Your task to perform on an android device: set the timer Image 0: 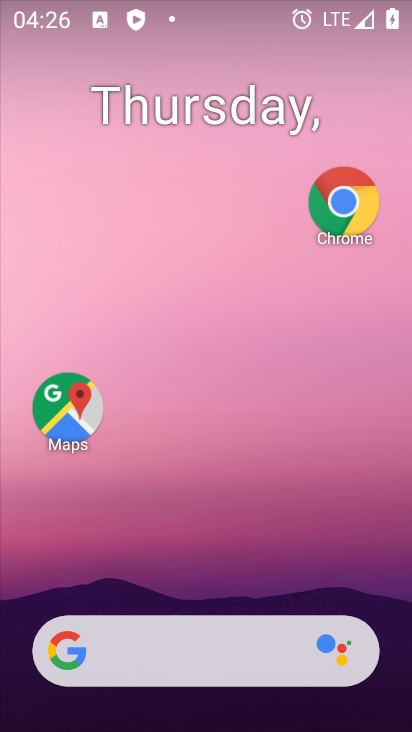
Step 0: drag from (297, 681) to (326, 32)
Your task to perform on an android device: set the timer Image 1: 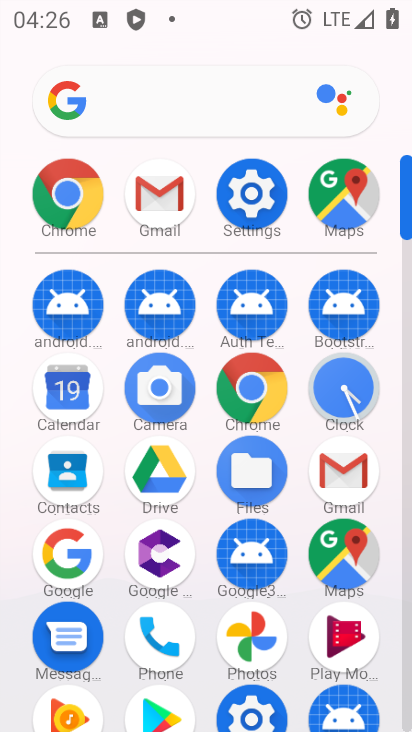
Step 1: click (354, 397)
Your task to perform on an android device: set the timer Image 2: 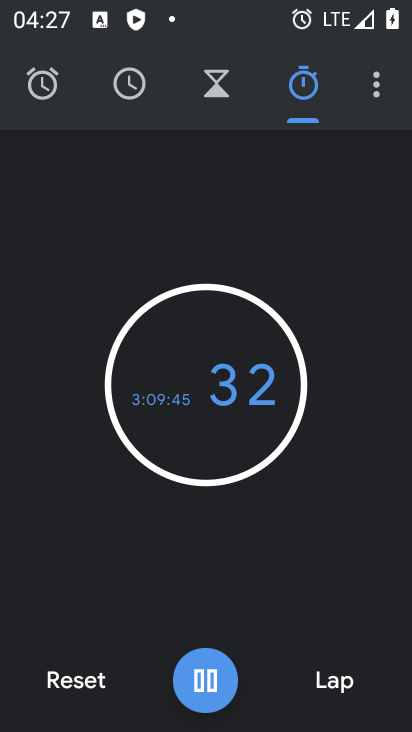
Step 2: click (234, 79)
Your task to perform on an android device: set the timer Image 3: 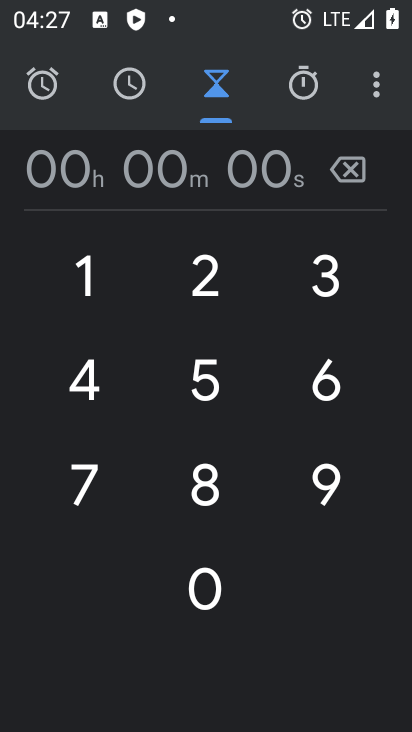
Step 3: click (204, 486)
Your task to perform on an android device: set the timer Image 4: 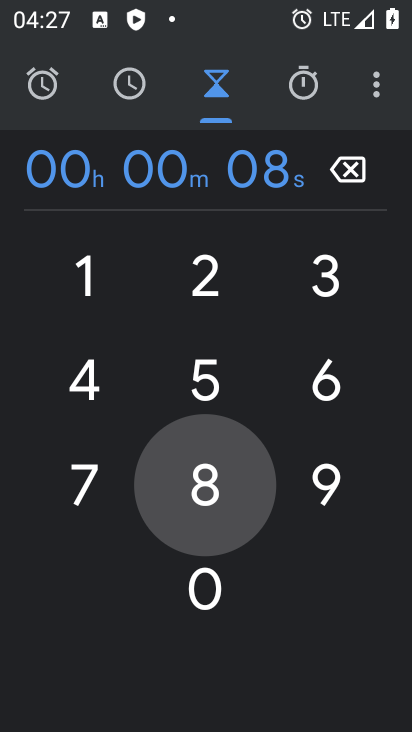
Step 4: click (218, 407)
Your task to perform on an android device: set the timer Image 5: 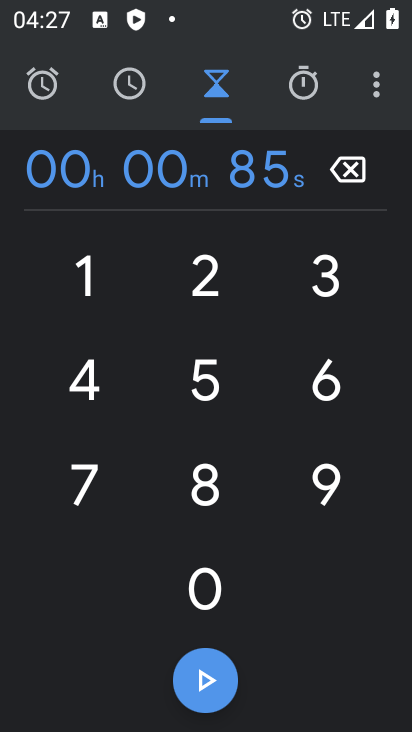
Step 5: click (202, 318)
Your task to perform on an android device: set the timer Image 6: 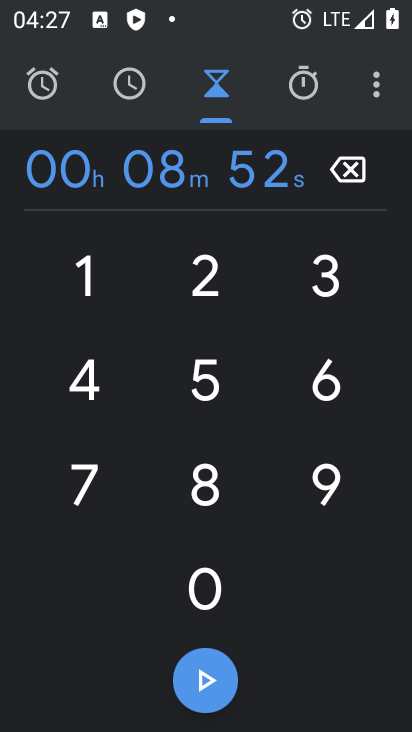
Step 6: click (328, 280)
Your task to perform on an android device: set the timer Image 7: 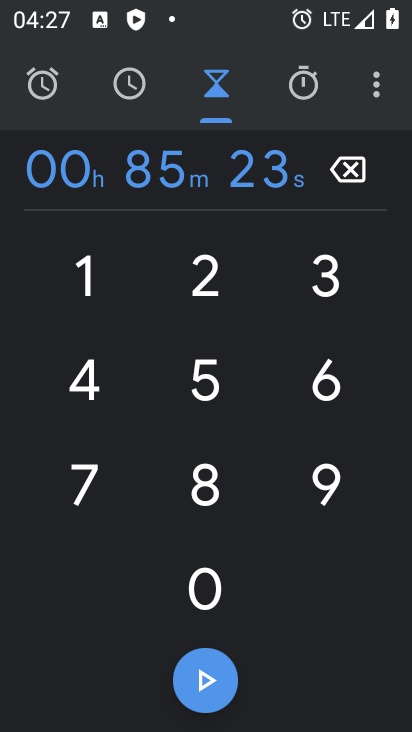
Step 7: click (338, 383)
Your task to perform on an android device: set the timer Image 8: 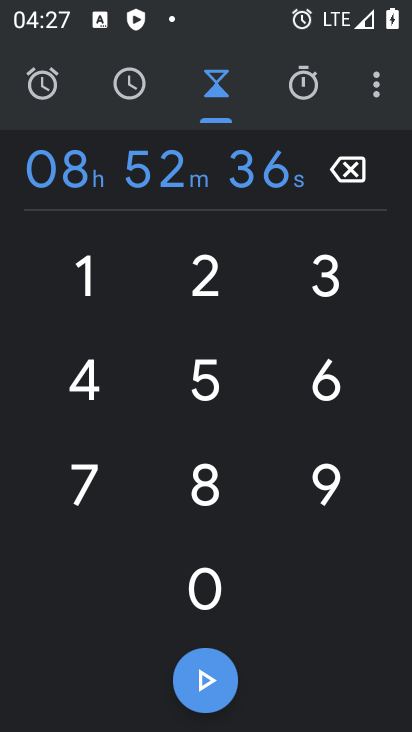
Step 8: click (317, 473)
Your task to perform on an android device: set the timer Image 9: 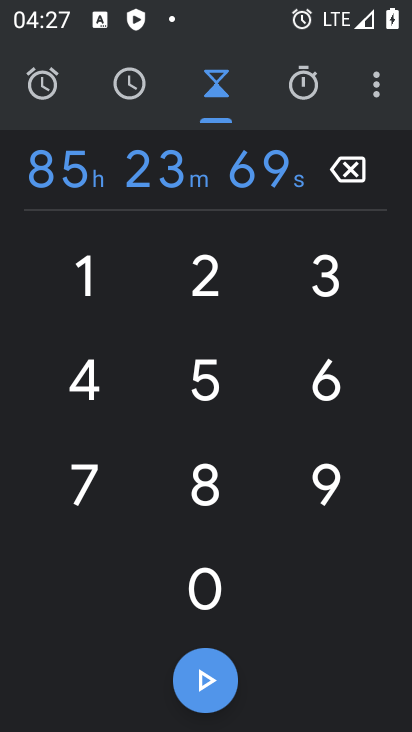
Step 9: click (199, 696)
Your task to perform on an android device: set the timer Image 10: 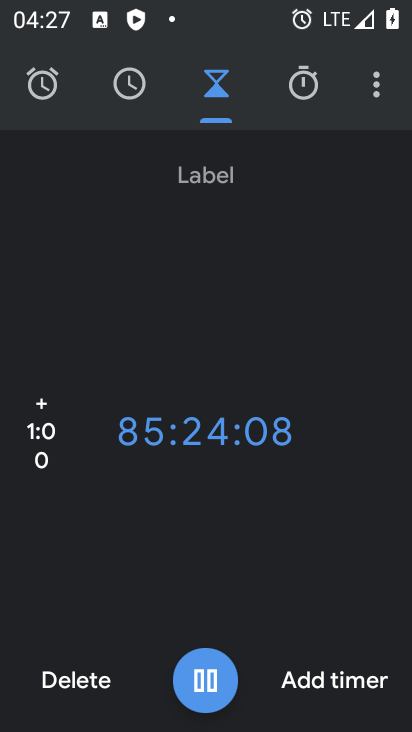
Step 10: task complete